Your task to perform on an android device: empty trash in the gmail app Image 0: 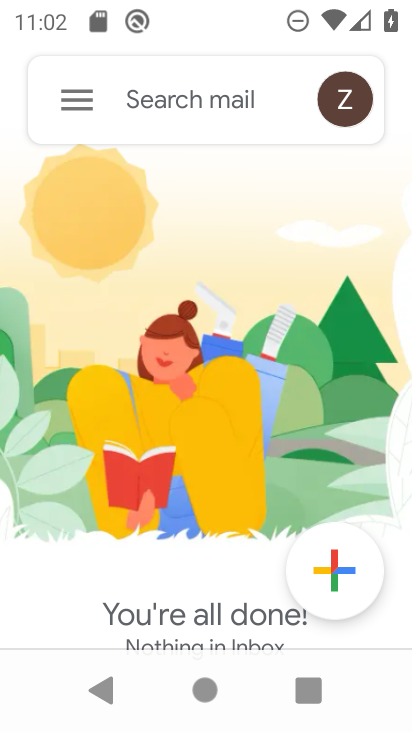
Step 0: press home button
Your task to perform on an android device: empty trash in the gmail app Image 1: 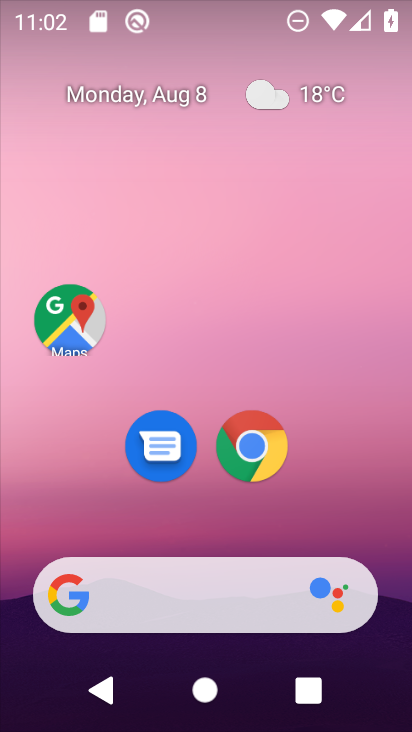
Step 1: drag from (400, 619) to (367, 149)
Your task to perform on an android device: empty trash in the gmail app Image 2: 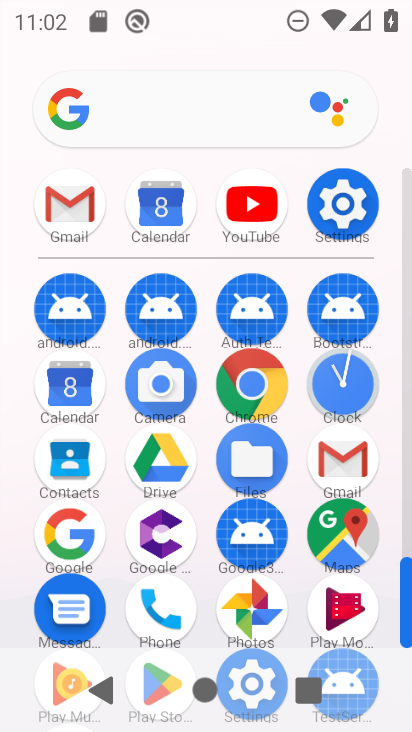
Step 2: click (339, 458)
Your task to perform on an android device: empty trash in the gmail app Image 3: 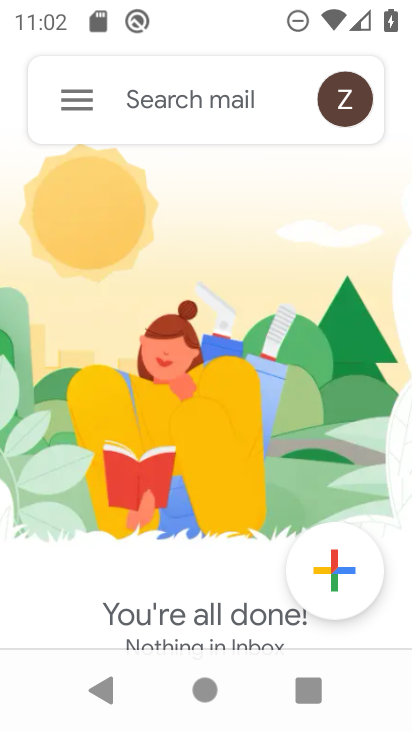
Step 3: click (79, 110)
Your task to perform on an android device: empty trash in the gmail app Image 4: 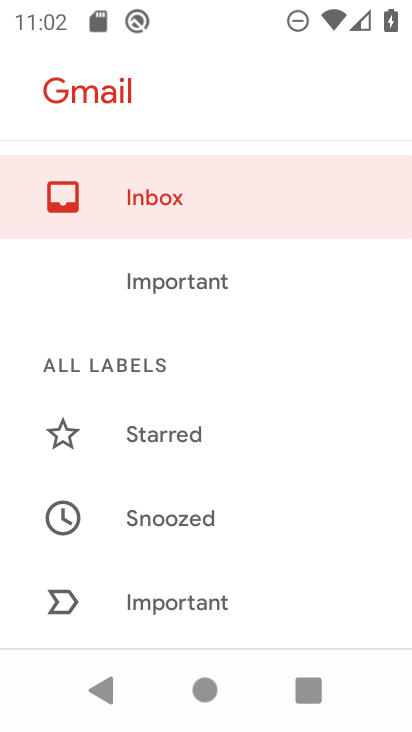
Step 4: drag from (247, 597) to (261, 232)
Your task to perform on an android device: empty trash in the gmail app Image 5: 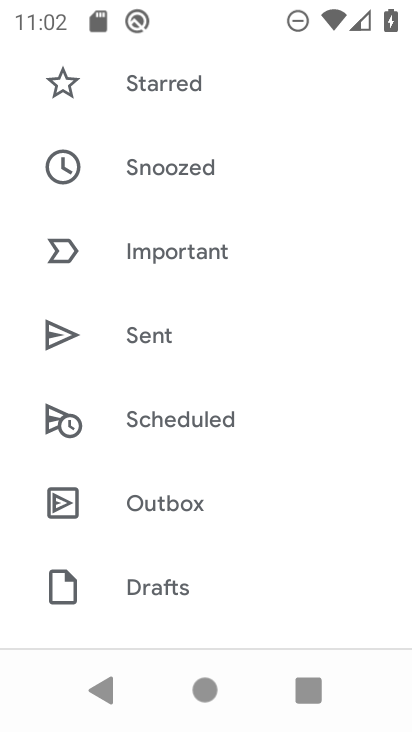
Step 5: drag from (253, 595) to (264, 274)
Your task to perform on an android device: empty trash in the gmail app Image 6: 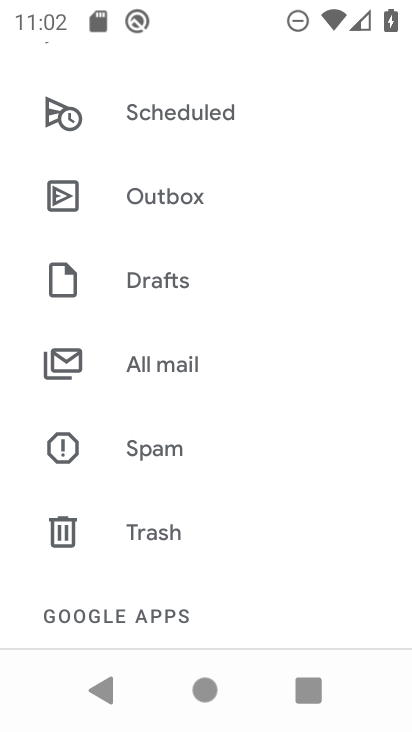
Step 6: click (130, 536)
Your task to perform on an android device: empty trash in the gmail app Image 7: 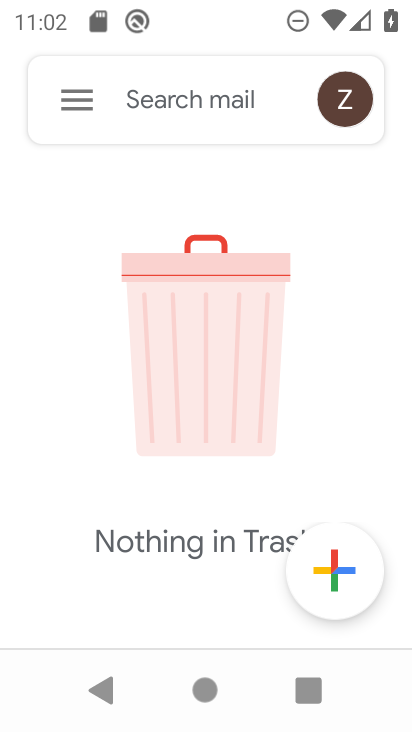
Step 7: task complete